Your task to perform on an android device: Open Google Maps Image 0: 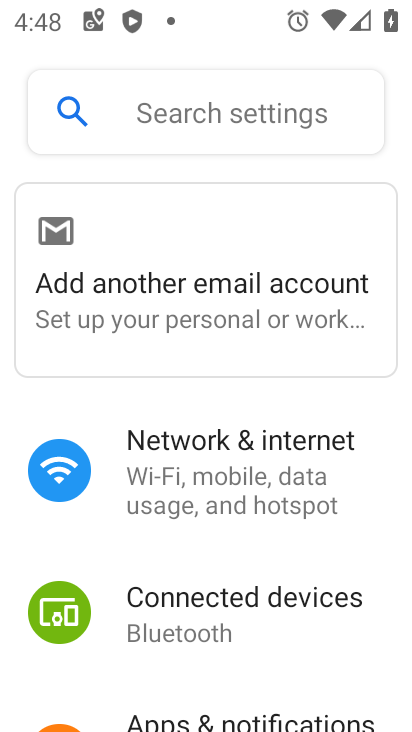
Step 0: press home button
Your task to perform on an android device: Open Google Maps Image 1: 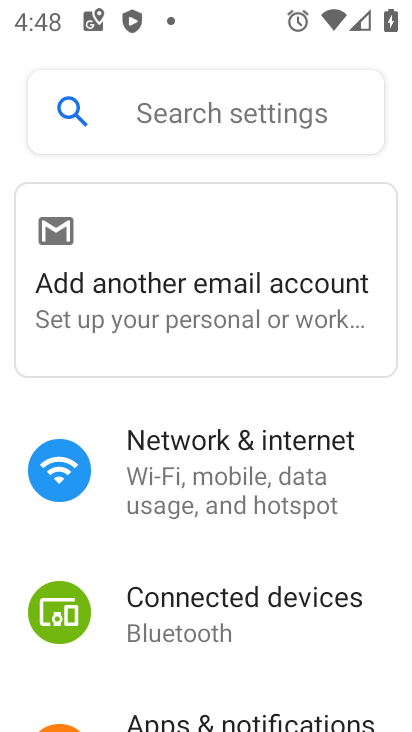
Step 1: press home button
Your task to perform on an android device: Open Google Maps Image 2: 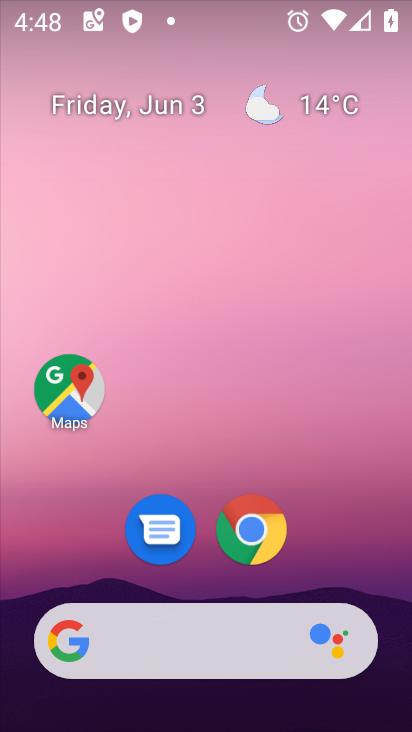
Step 2: click (67, 386)
Your task to perform on an android device: Open Google Maps Image 3: 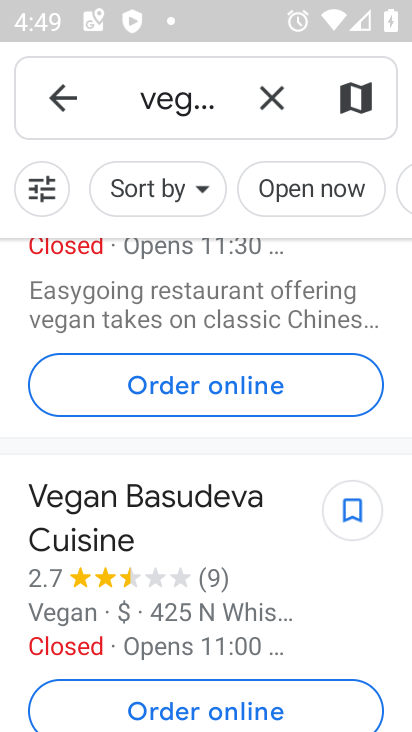
Step 3: click (75, 105)
Your task to perform on an android device: Open Google Maps Image 4: 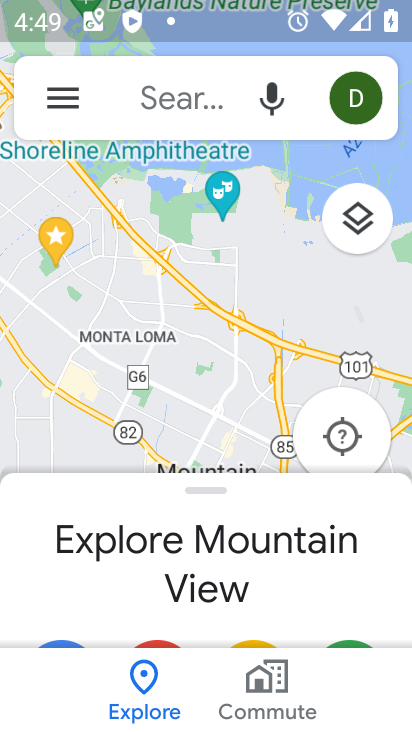
Step 4: task complete